Your task to perform on an android device: see tabs open on other devices in the chrome app Image 0: 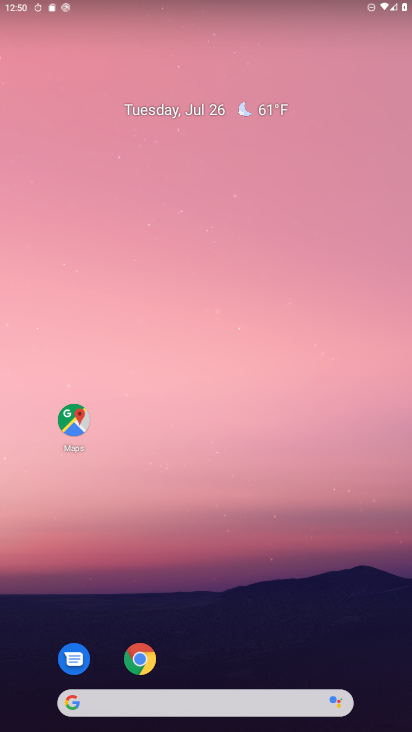
Step 0: click (128, 665)
Your task to perform on an android device: see tabs open on other devices in the chrome app Image 1: 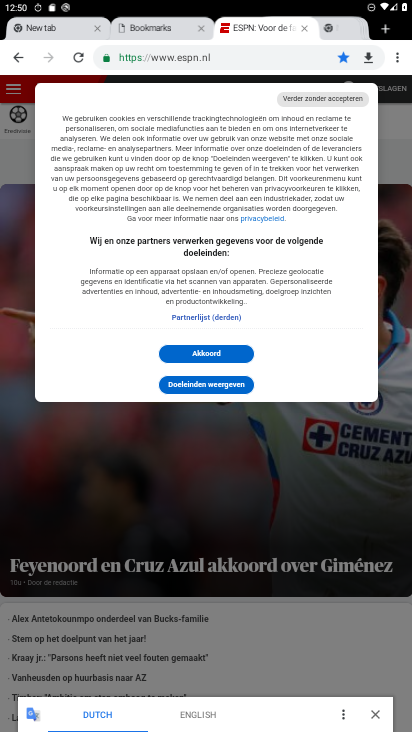
Step 1: click (398, 58)
Your task to perform on an android device: see tabs open on other devices in the chrome app Image 2: 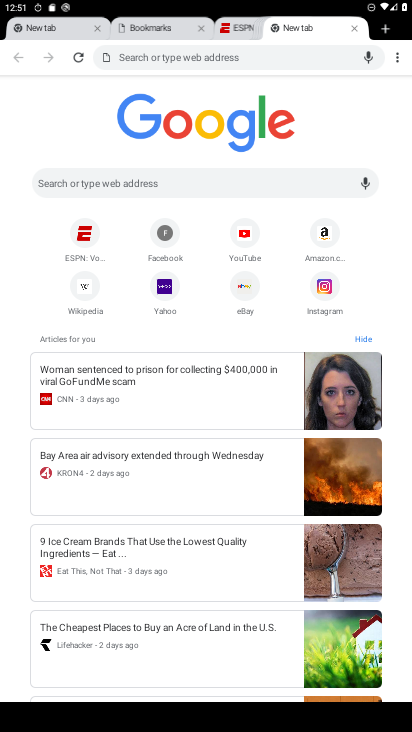
Step 2: task complete